Your task to perform on an android device: turn off sleep mode Image 0: 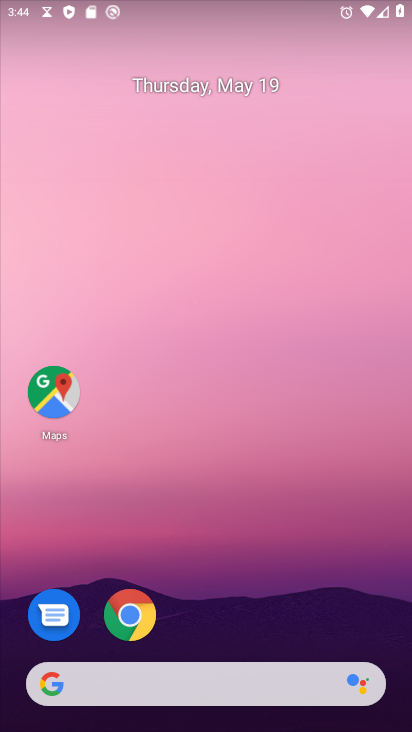
Step 0: drag from (225, 404) to (125, 117)
Your task to perform on an android device: turn off sleep mode Image 1: 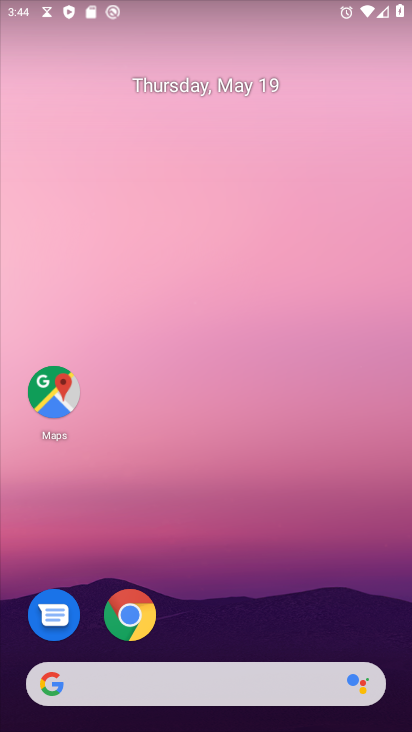
Step 1: drag from (223, 333) to (171, 56)
Your task to perform on an android device: turn off sleep mode Image 2: 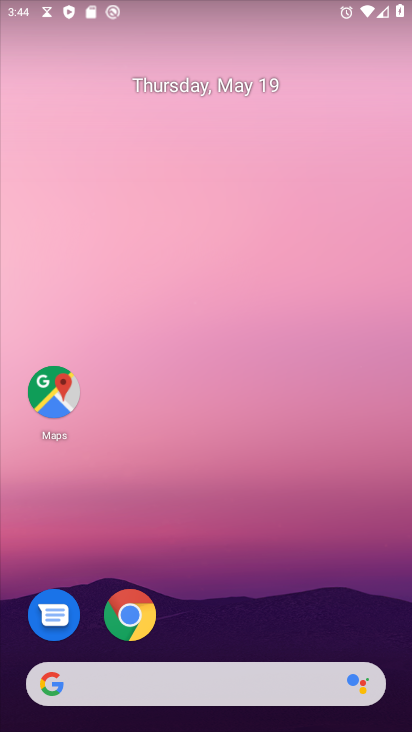
Step 2: drag from (228, 555) to (202, 44)
Your task to perform on an android device: turn off sleep mode Image 3: 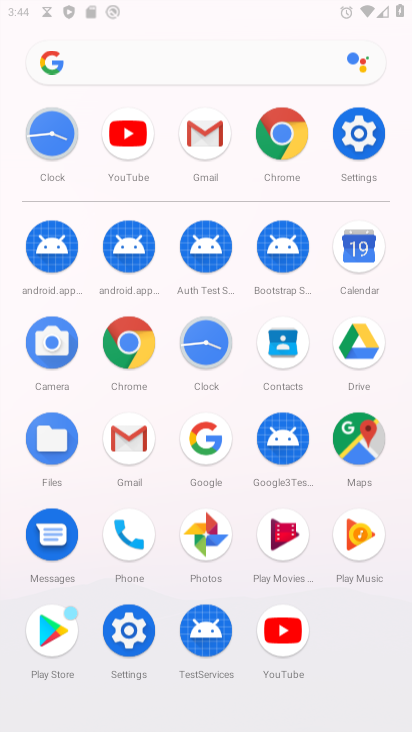
Step 3: drag from (239, 371) to (156, 40)
Your task to perform on an android device: turn off sleep mode Image 4: 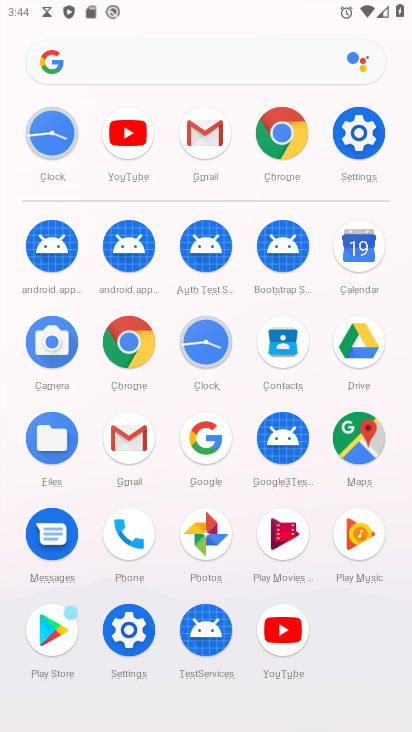
Step 4: click (119, 641)
Your task to perform on an android device: turn off sleep mode Image 5: 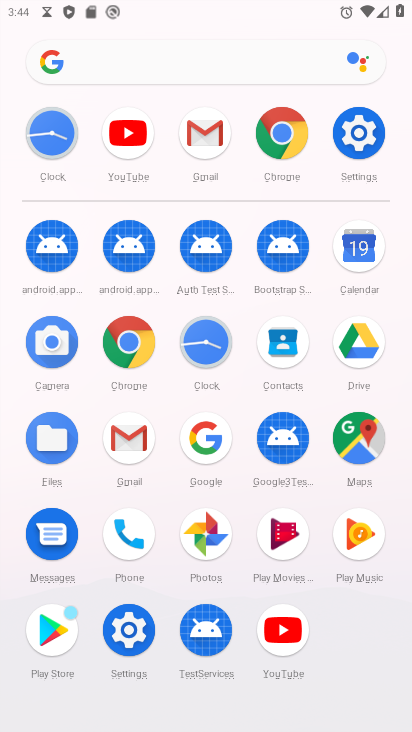
Step 5: click (121, 641)
Your task to perform on an android device: turn off sleep mode Image 6: 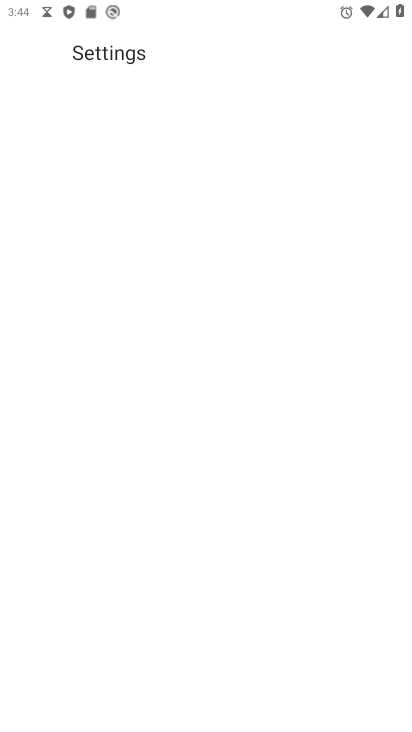
Step 6: click (122, 641)
Your task to perform on an android device: turn off sleep mode Image 7: 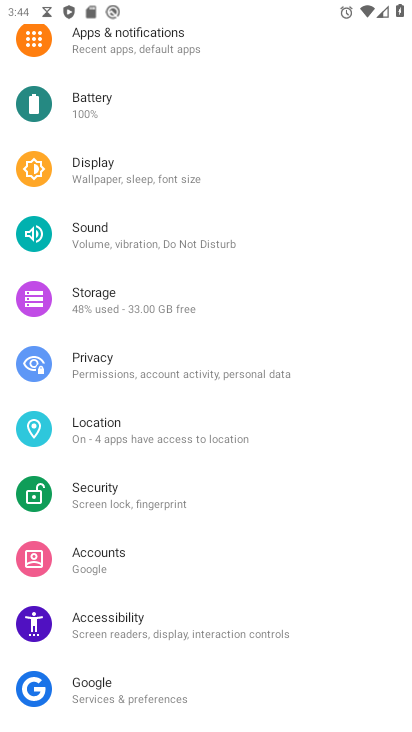
Step 7: click (95, 170)
Your task to perform on an android device: turn off sleep mode Image 8: 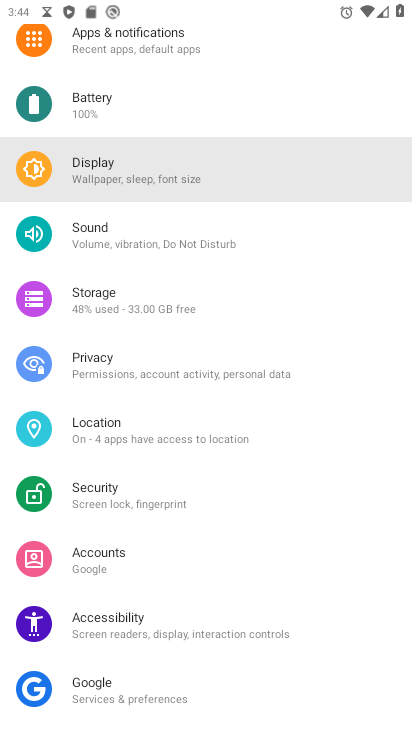
Step 8: click (94, 170)
Your task to perform on an android device: turn off sleep mode Image 9: 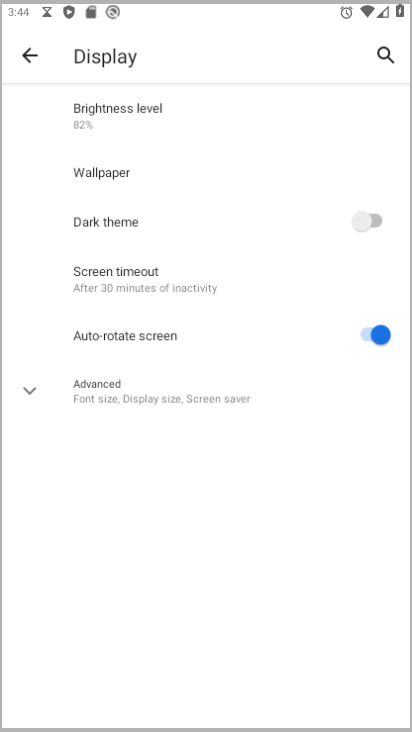
Step 9: click (94, 170)
Your task to perform on an android device: turn off sleep mode Image 10: 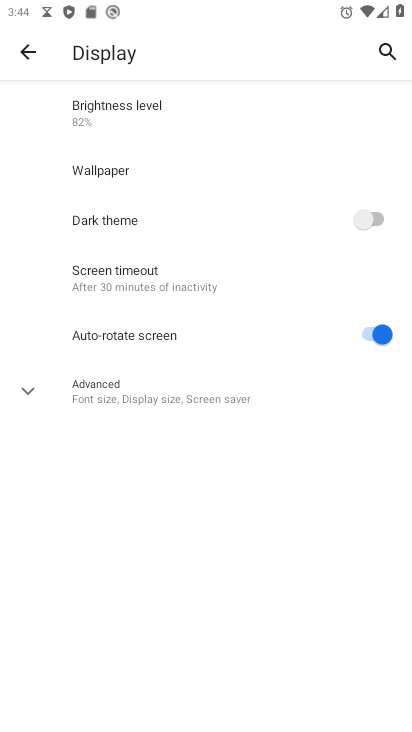
Step 10: click (94, 170)
Your task to perform on an android device: turn off sleep mode Image 11: 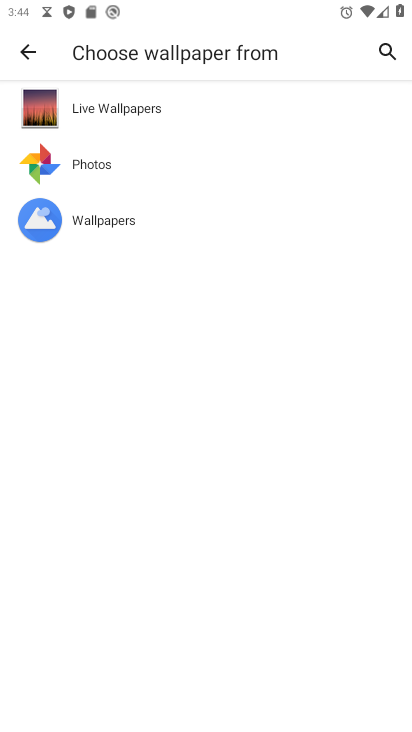
Step 11: click (20, 52)
Your task to perform on an android device: turn off sleep mode Image 12: 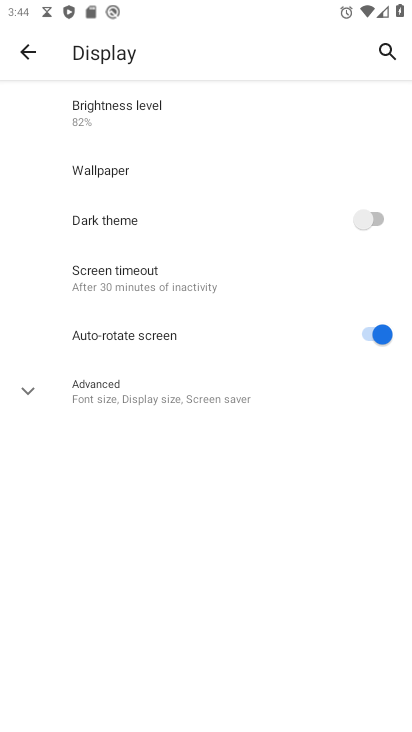
Step 12: task complete